Your task to perform on an android device: change notifications settings Image 0: 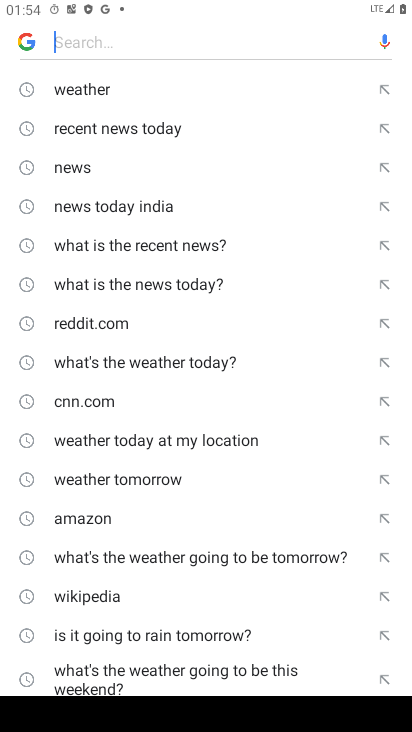
Step 0: press home button
Your task to perform on an android device: change notifications settings Image 1: 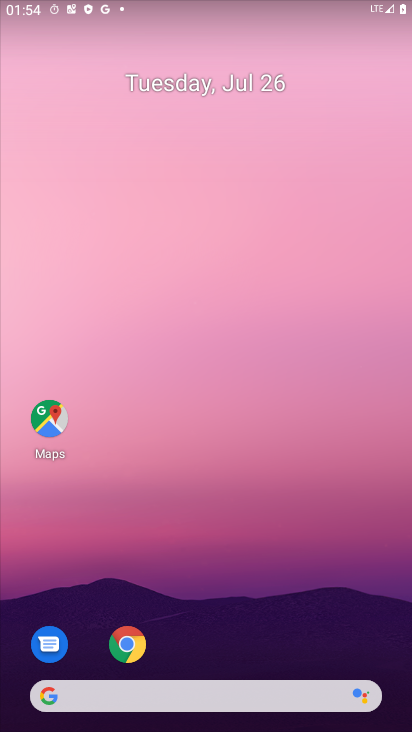
Step 1: drag from (209, 483) to (226, 104)
Your task to perform on an android device: change notifications settings Image 2: 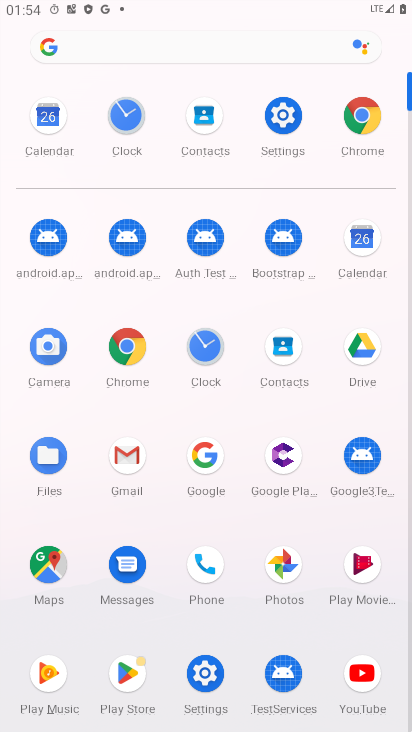
Step 2: click (276, 120)
Your task to perform on an android device: change notifications settings Image 3: 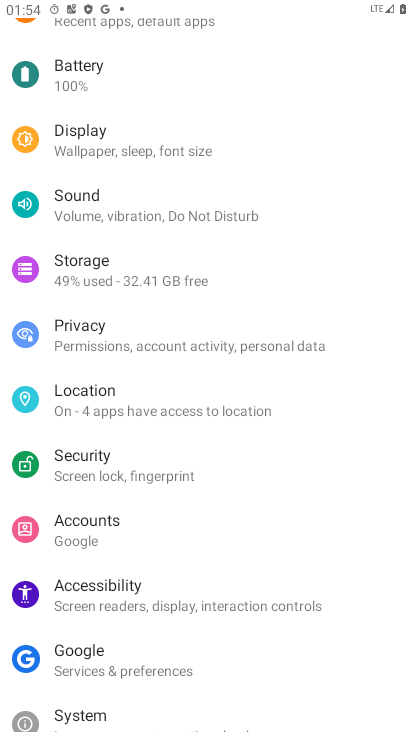
Step 3: drag from (276, 120) to (251, 352)
Your task to perform on an android device: change notifications settings Image 4: 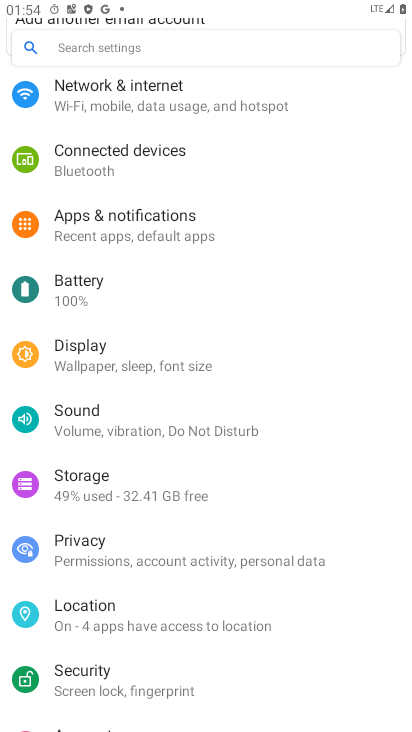
Step 4: click (122, 236)
Your task to perform on an android device: change notifications settings Image 5: 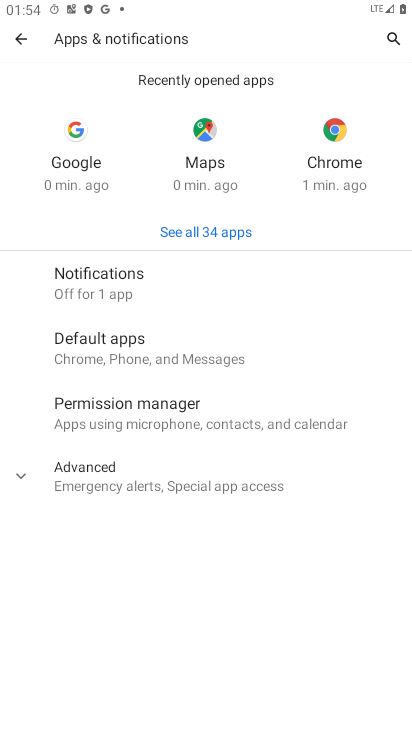
Step 5: click (101, 275)
Your task to perform on an android device: change notifications settings Image 6: 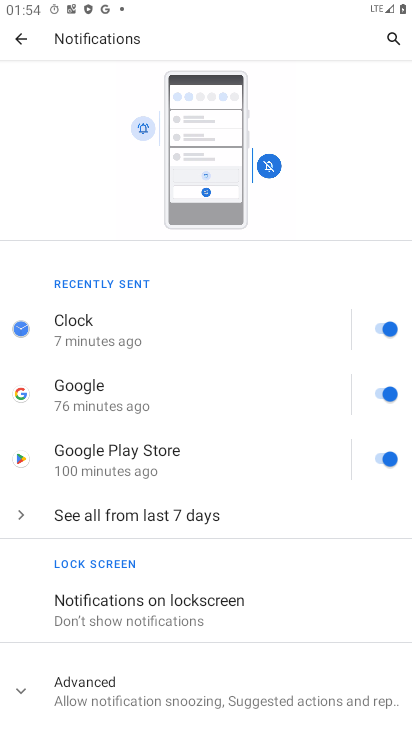
Step 6: click (149, 517)
Your task to perform on an android device: change notifications settings Image 7: 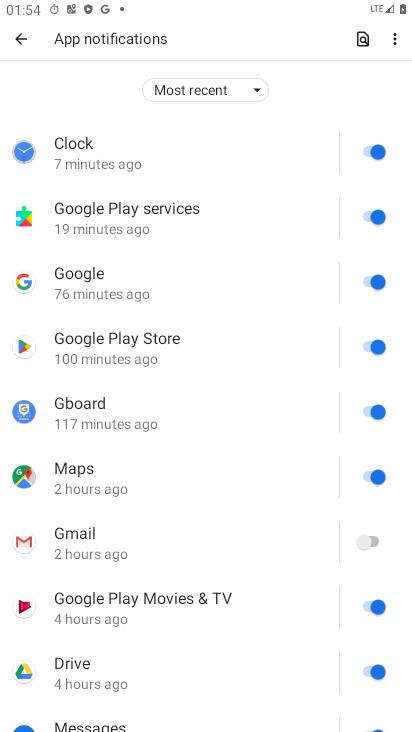
Step 7: click (255, 91)
Your task to perform on an android device: change notifications settings Image 8: 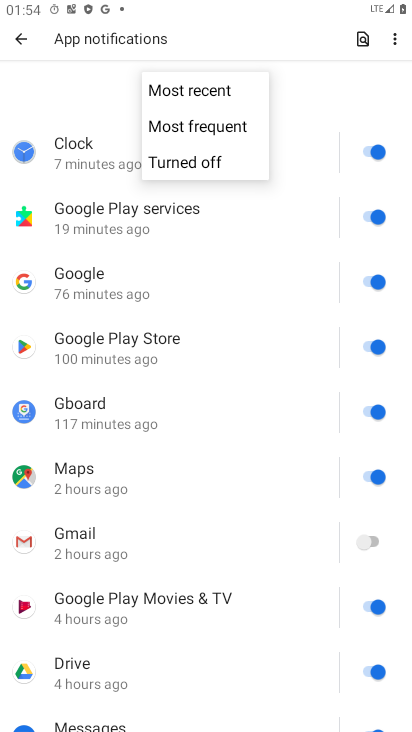
Step 8: click (193, 132)
Your task to perform on an android device: change notifications settings Image 9: 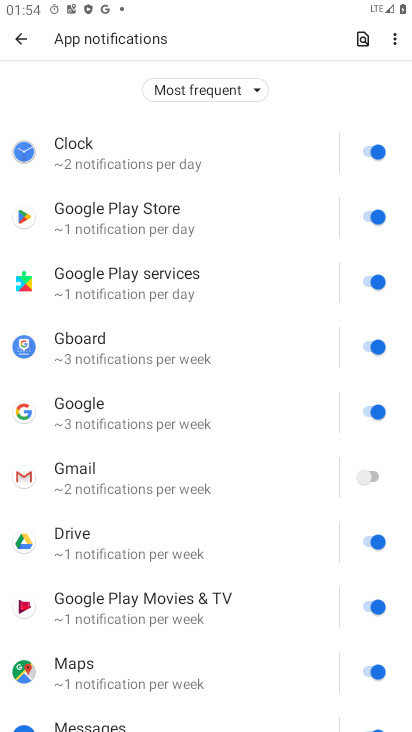
Step 9: task complete